Your task to perform on an android device: Open accessibility settings Image 0: 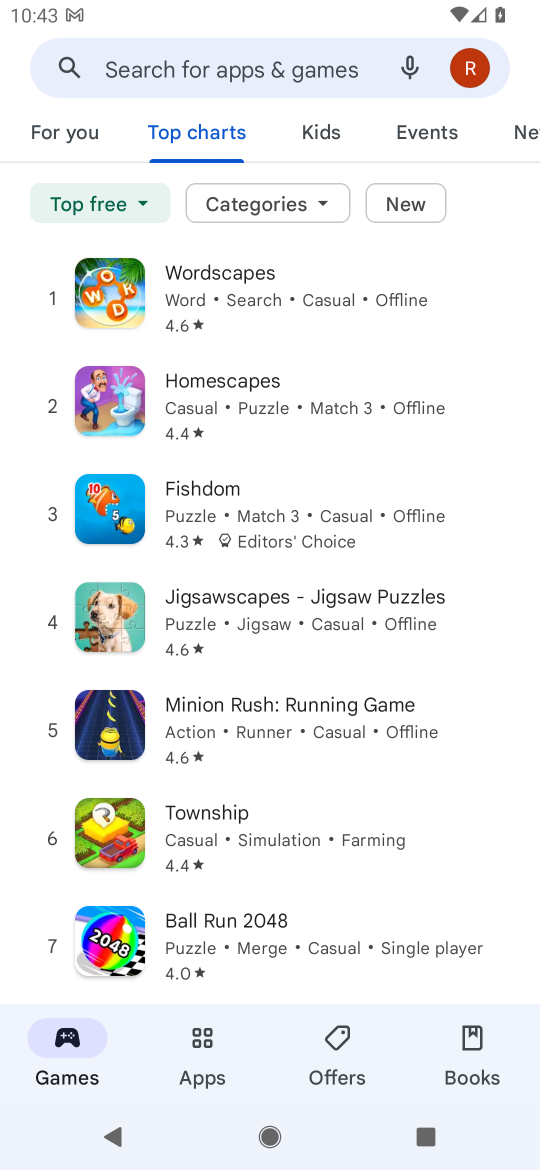
Step 0: press home button
Your task to perform on an android device: Open accessibility settings Image 1: 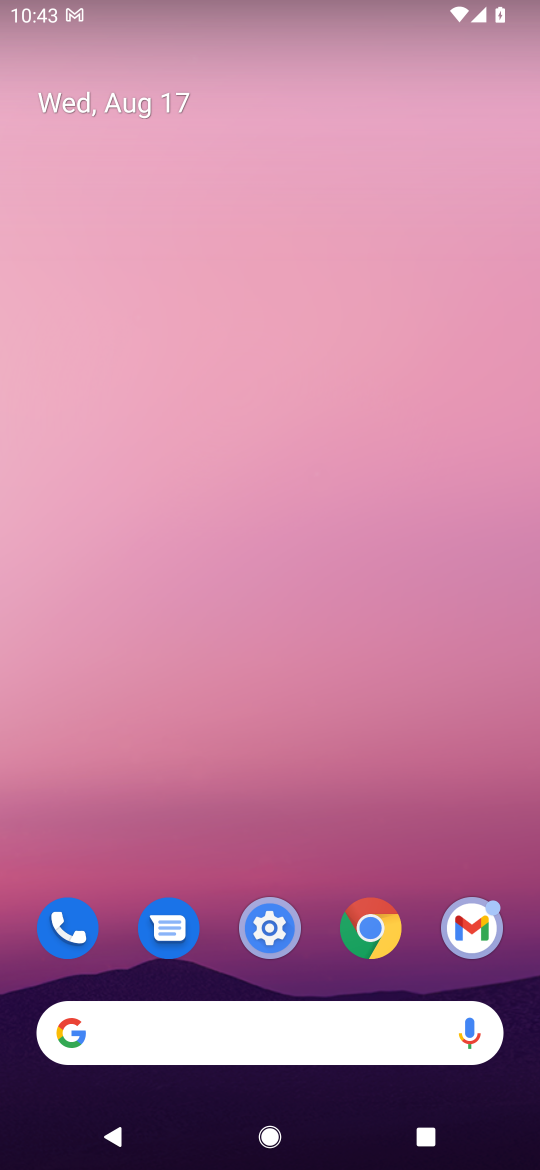
Step 1: click (284, 922)
Your task to perform on an android device: Open accessibility settings Image 2: 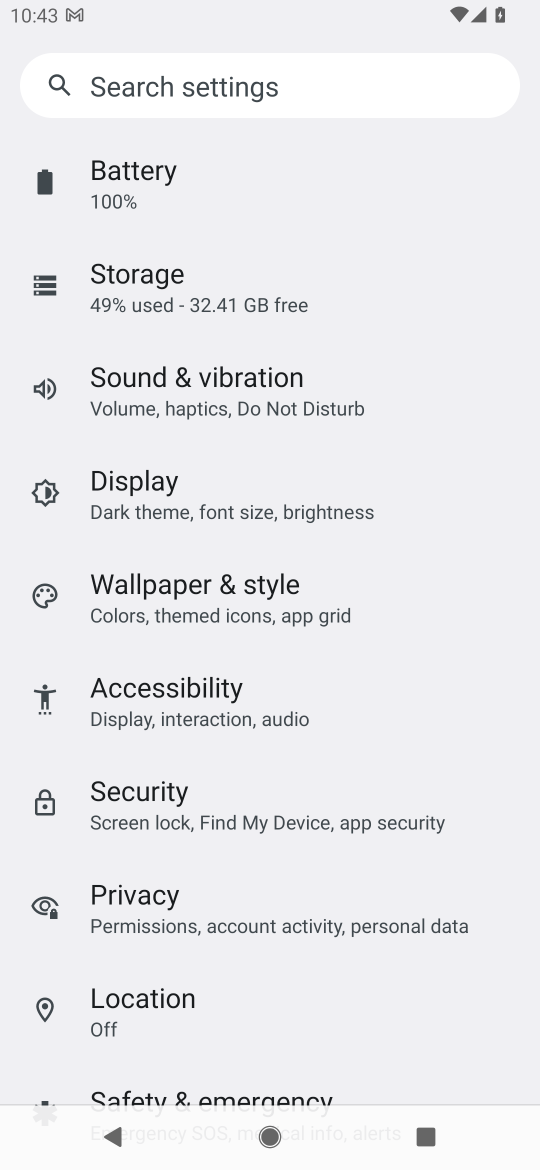
Step 2: click (206, 691)
Your task to perform on an android device: Open accessibility settings Image 3: 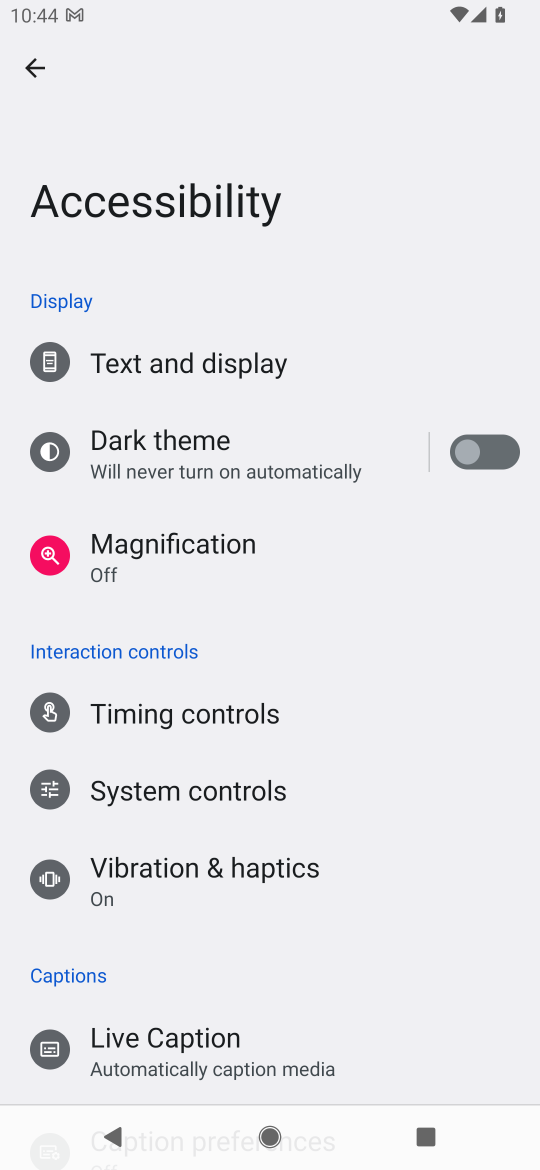
Step 3: task complete